Your task to perform on an android device: add a label to a message in the gmail app Image 0: 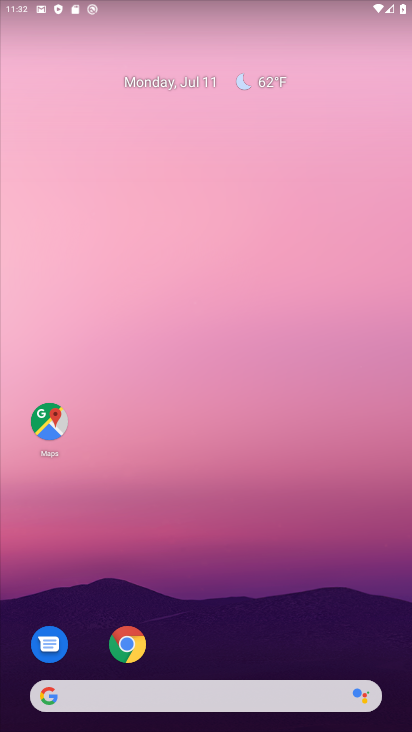
Step 0: drag from (211, 682) to (19, 495)
Your task to perform on an android device: add a label to a message in the gmail app Image 1: 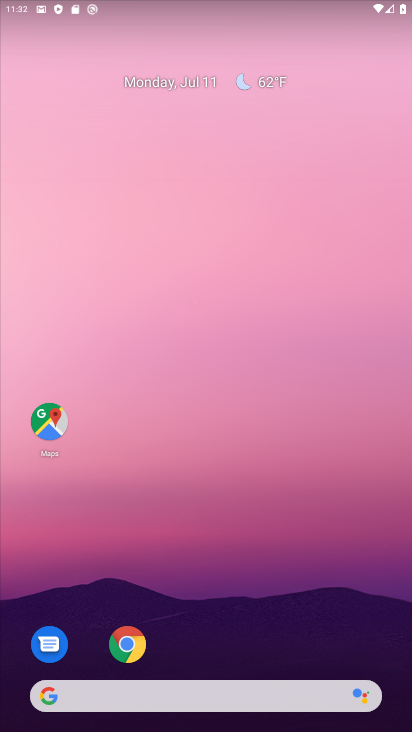
Step 1: drag from (218, 684) to (181, 179)
Your task to perform on an android device: add a label to a message in the gmail app Image 2: 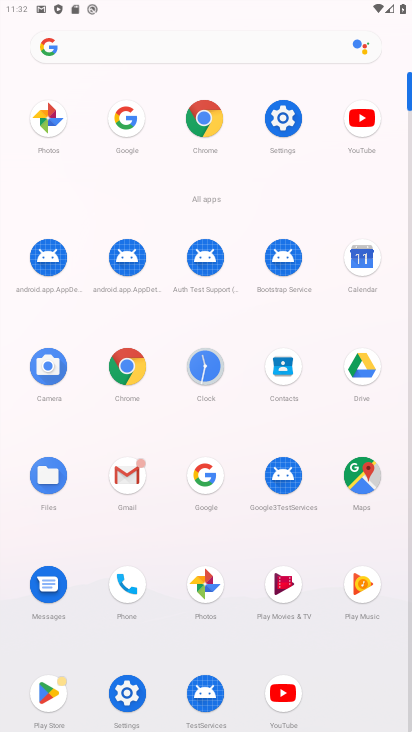
Step 2: click (127, 469)
Your task to perform on an android device: add a label to a message in the gmail app Image 3: 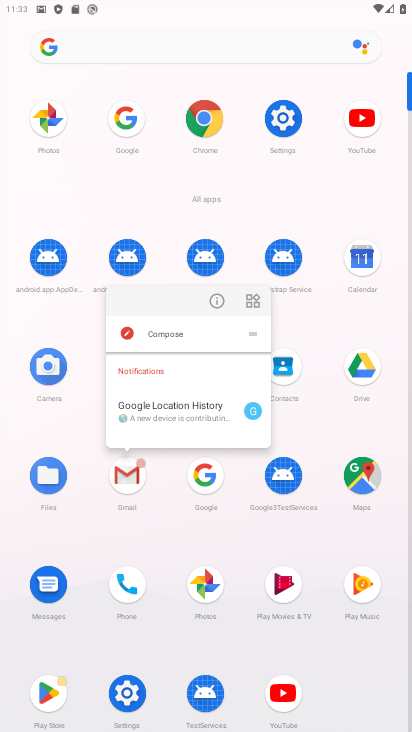
Step 3: click (119, 493)
Your task to perform on an android device: add a label to a message in the gmail app Image 4: 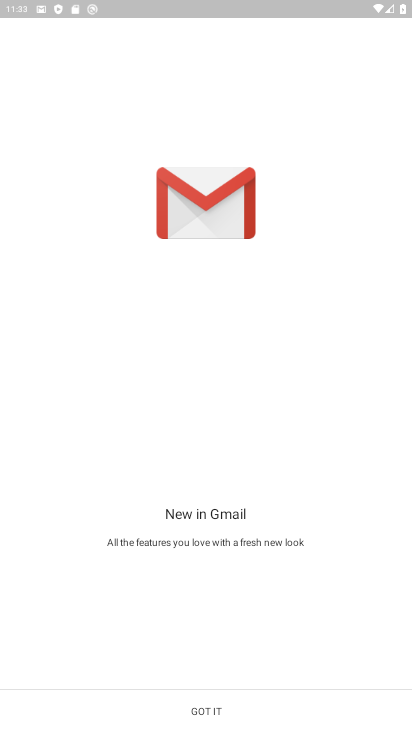
Step 4: click (189, 712)
Your task to perform on an android device: add a label to a message in the gmail app Image 5: 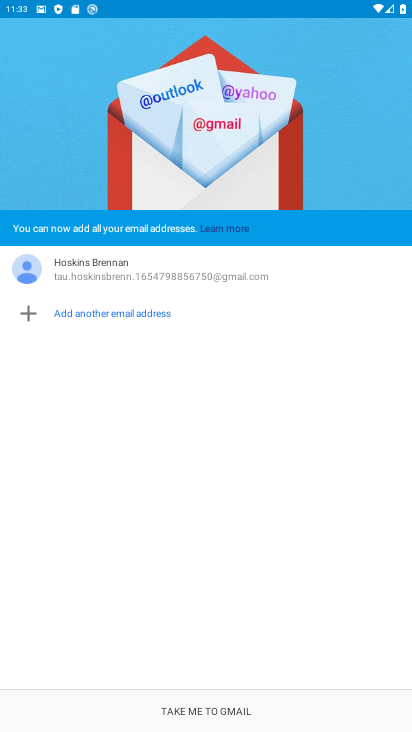
Step 5: click (182, 707)
Your task to perform on an android device: add a label to a message in the gmail app Image 6: 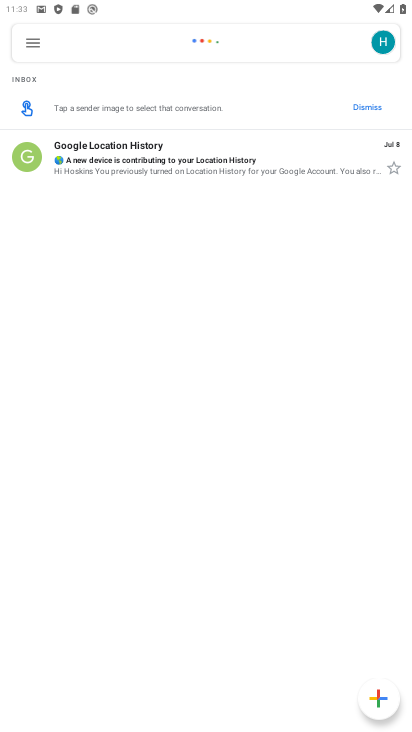
Step 6: click (85, 172)
Your task to perform on an android device: add a label to a message in the gmail app Image 7: 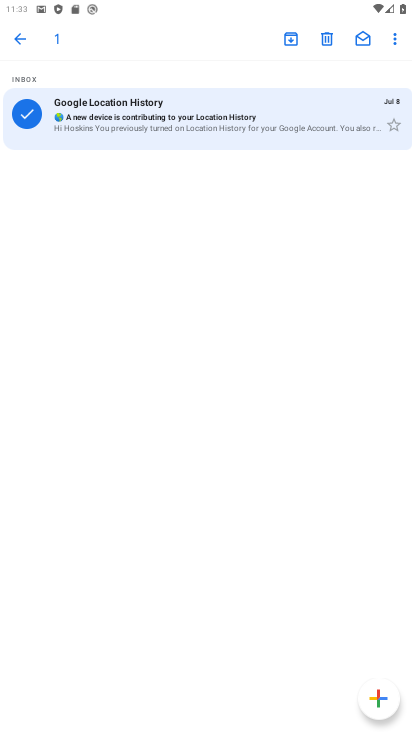
Step 7: click (392, 39)
Your task to perform on an android device: add a label to a message in the gmail app Image 8: 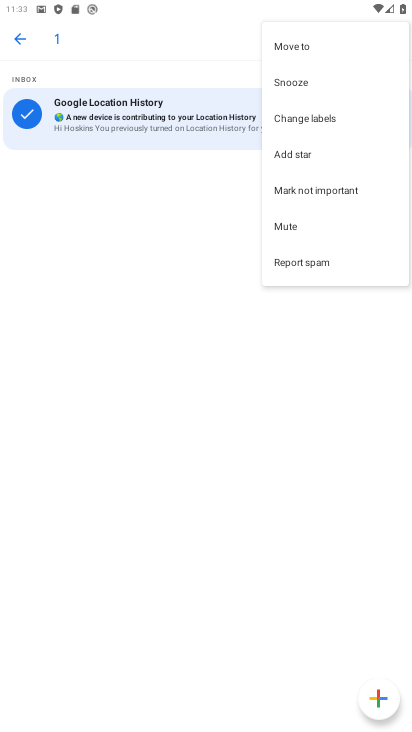
Step 8: click (300, 114)
Your task to perform on an android device: add a label to a message in the gmail app Image 9: 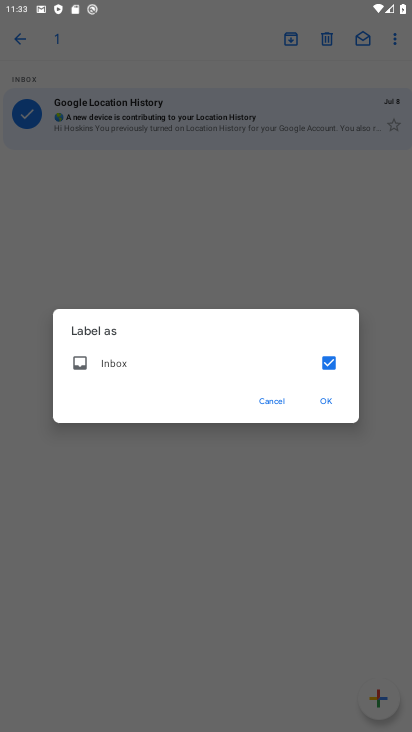
Step 9: click (331, 374)
Your task to perform on an android device: add a label to a message in the gmail app Image 10: 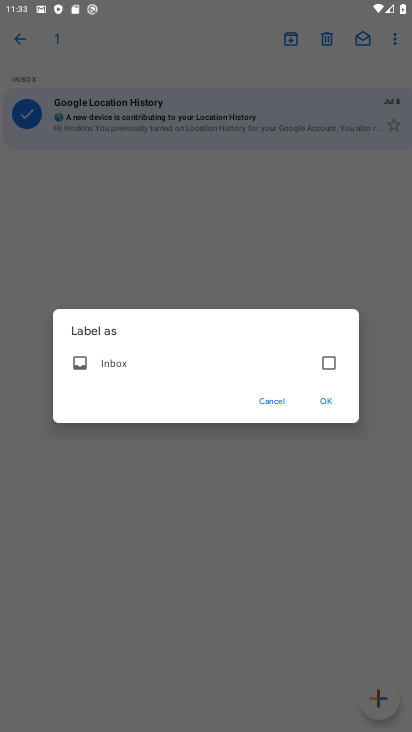
Step 10: click (324, 397)
Your task to perform on an android device: add a label to a message in the gmail app Image 11: 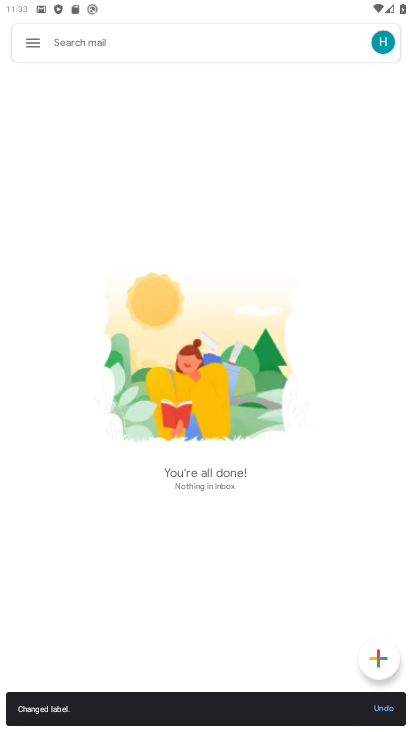
Step 11: task complete